Your task to perform on an android device: Open the calendar app, open the side menu, and click the "Day" option Image 0: 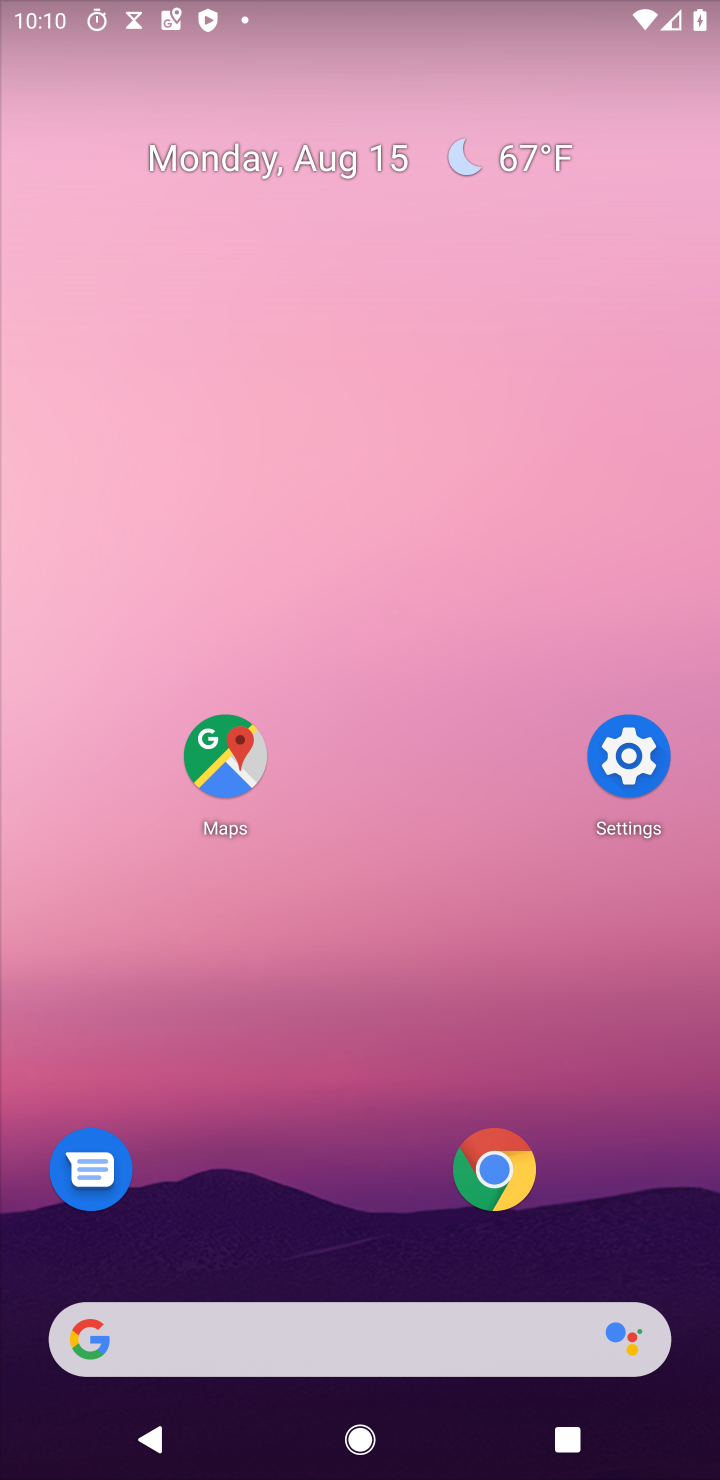
Step 0: drag from (291, 1342) to (577, 1452)
Your task to perform on an android device: Open the calendar app, open the side menu, and click the "Day" option Image 1: 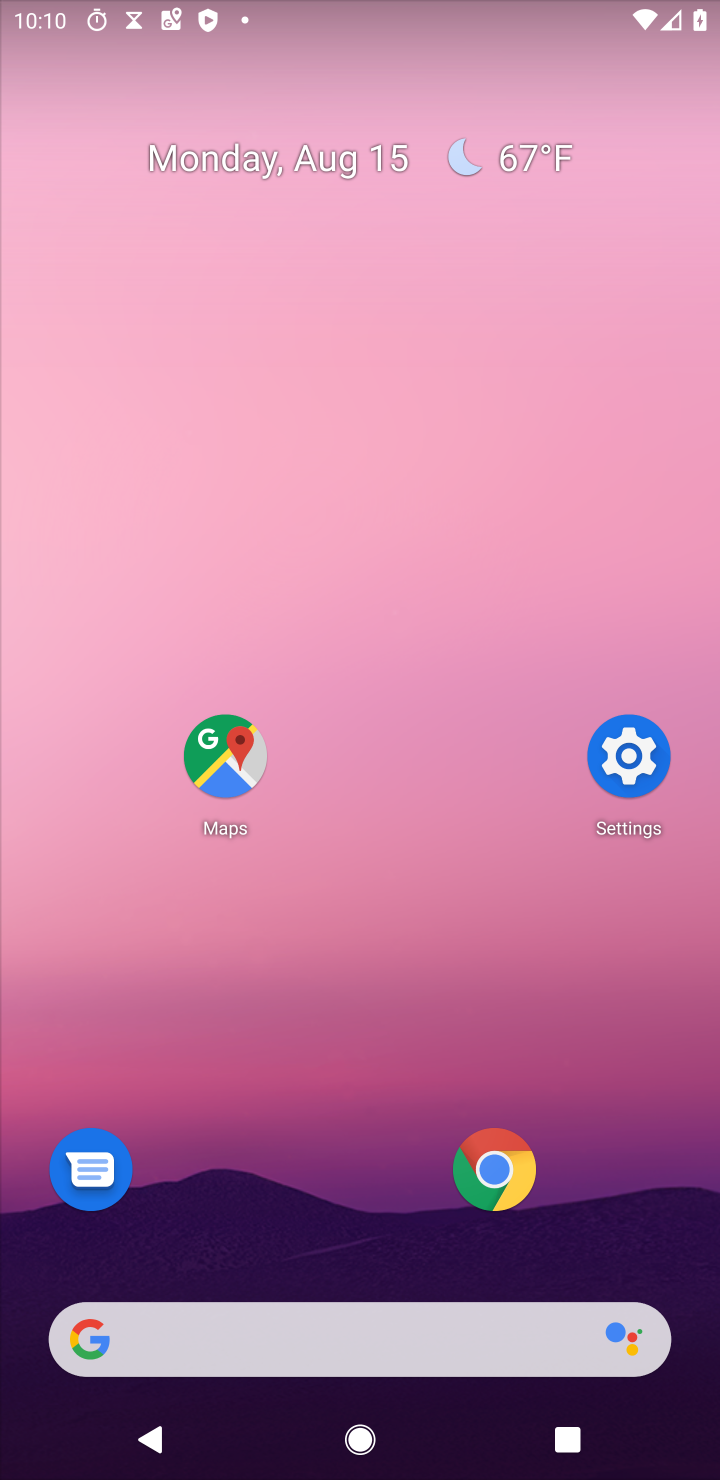
Step 1: drag from (312, 1310) to (570, 289)
Your task to perform on an android device: Open the calendar app, open the side menu, and click the "Day" option Image 2: 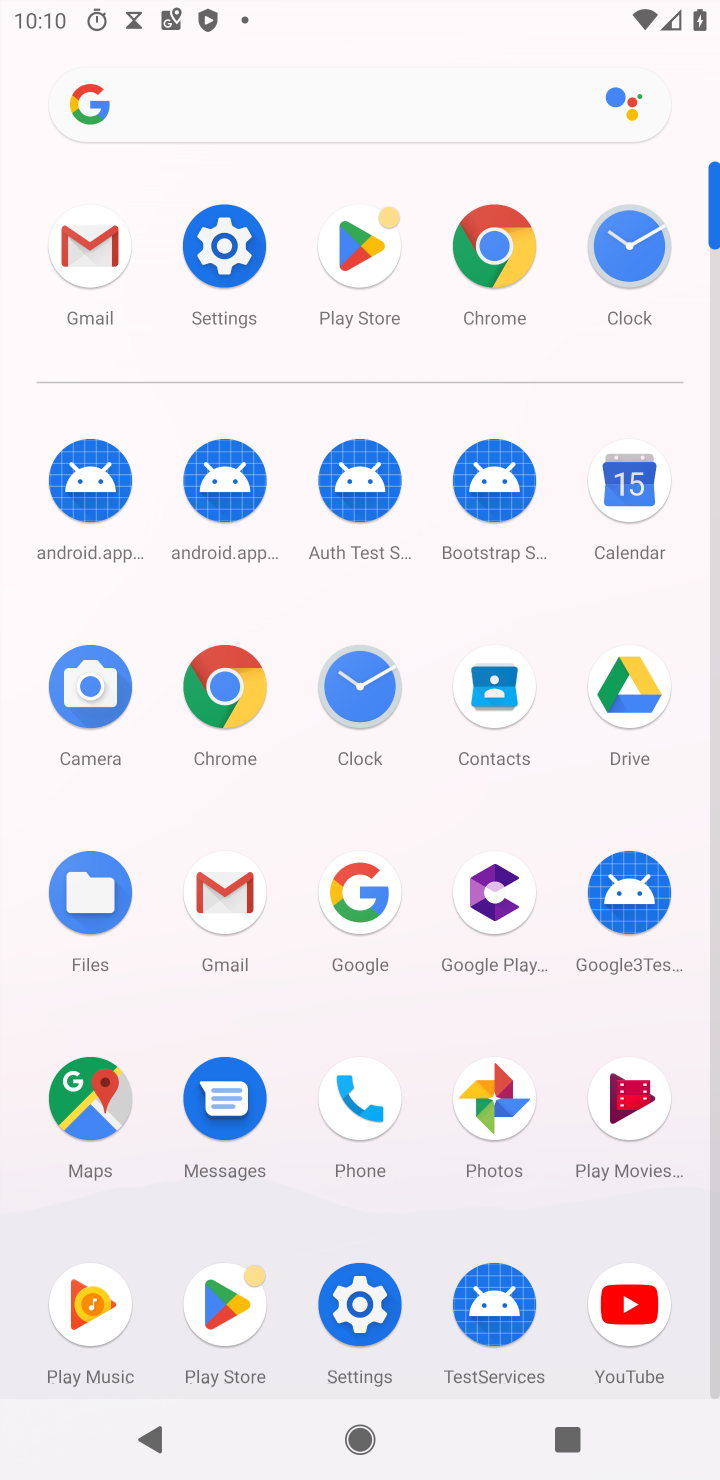
Step 2: click (626, 478)
Your task to perform on an android device: Open the calendar app, open the side menu, and click the "Day" option Image 3: 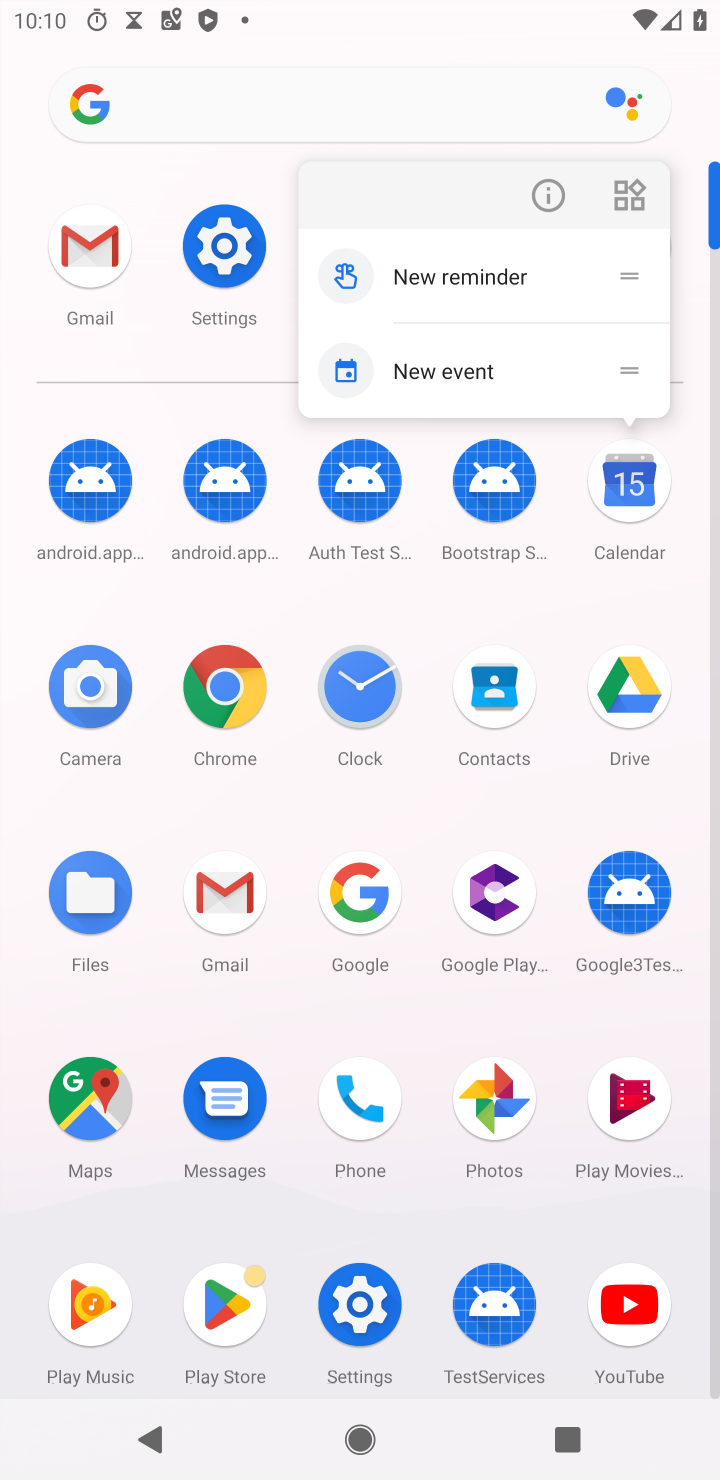
Step 3: click (643, 504)
Your task to perform on an android device: Open the calendar app, open the side menu, and click the "Day" option Image 4: 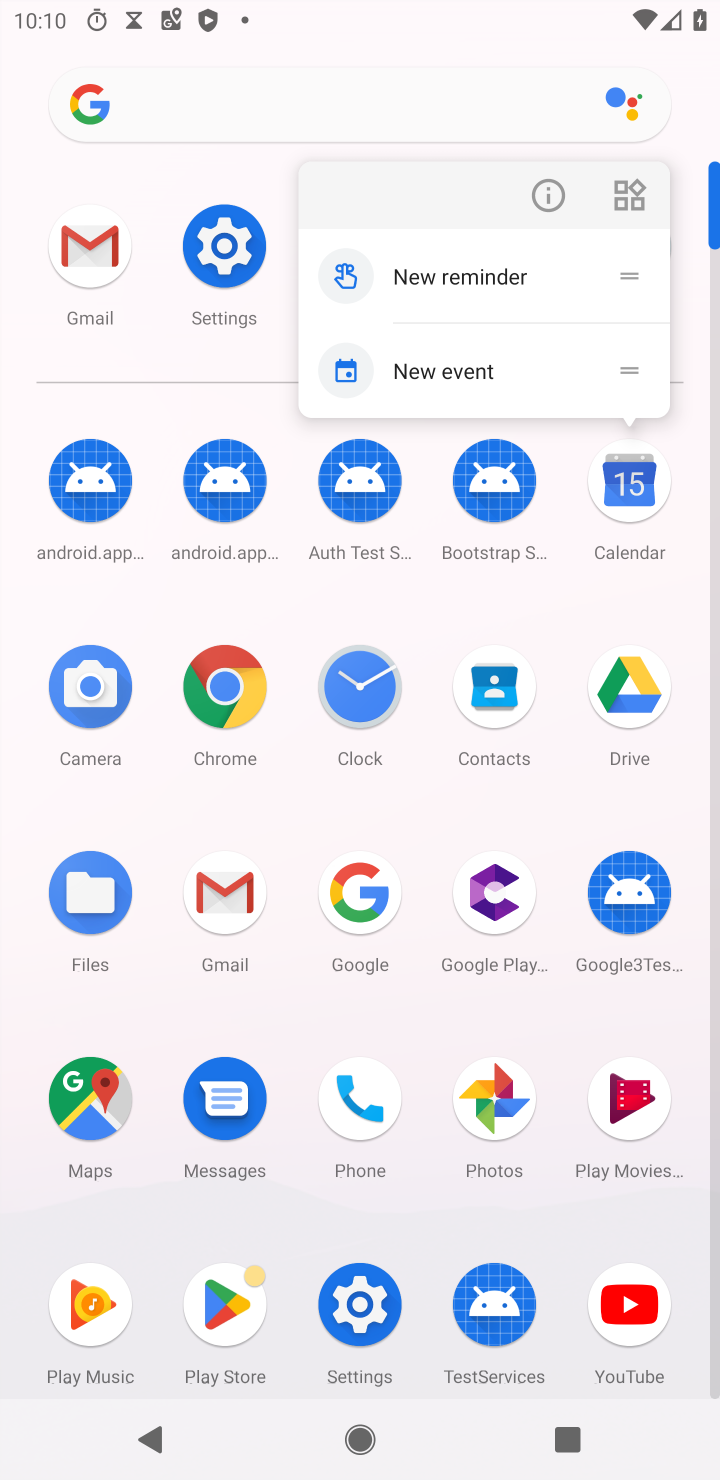
Step 4: click (635, 496)
Your task to perform on an android device: Open the calendar app, open the side menu, and click the "Day" option Image 5: 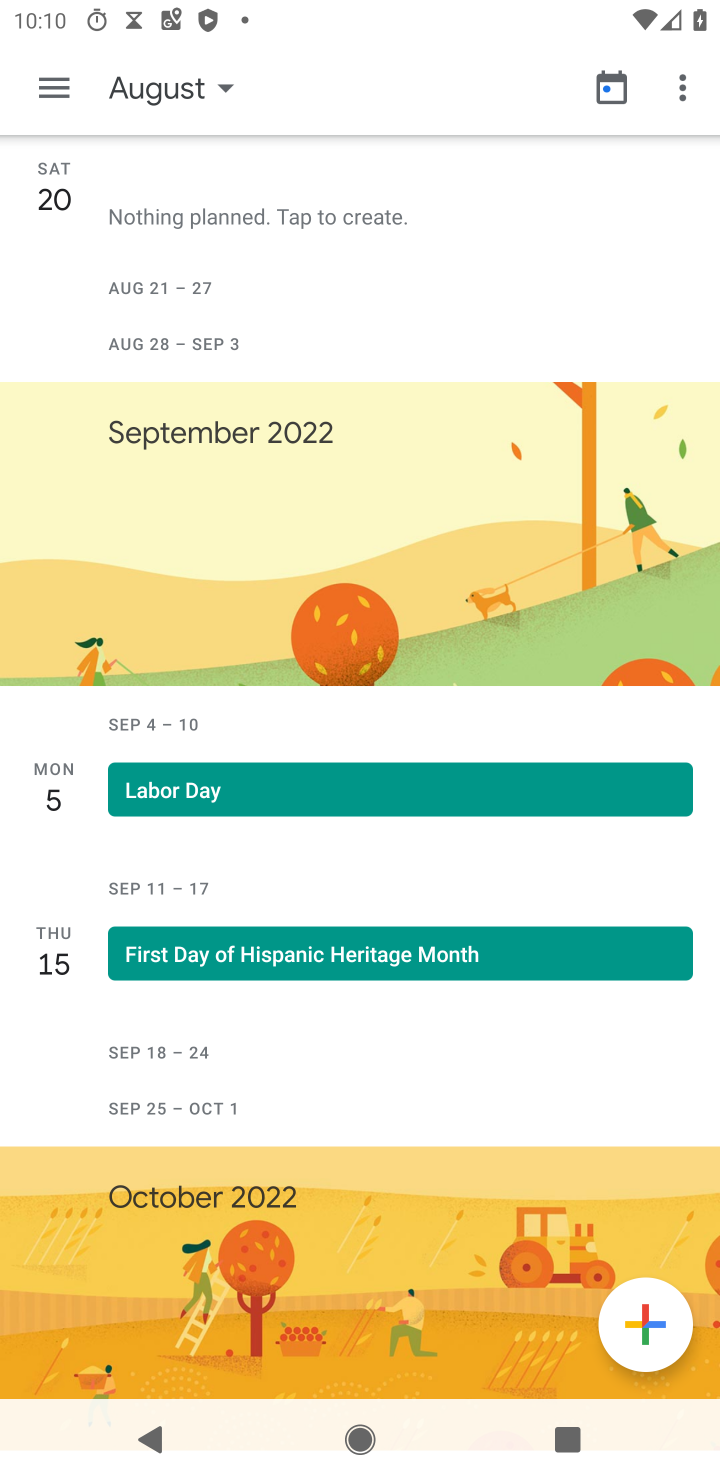
Step 5: click (46, 87)
Your task to perform on an android device: Open the calendar app, open the side menu, and click the "Day" option Image 6: 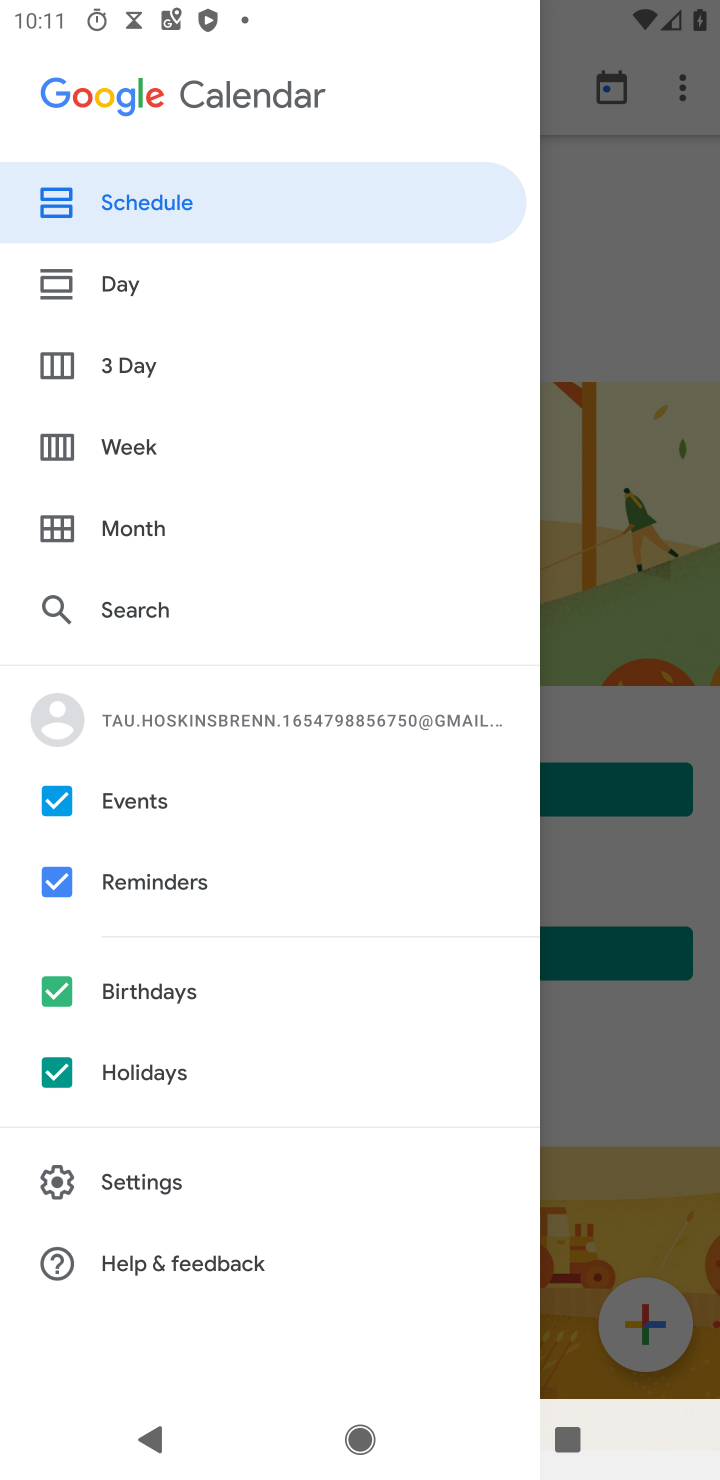
Step 6: click (125, 288)
Your task to perform on an android device: Open the calendar app, open the side menu, and click the "Day" option Image 7: 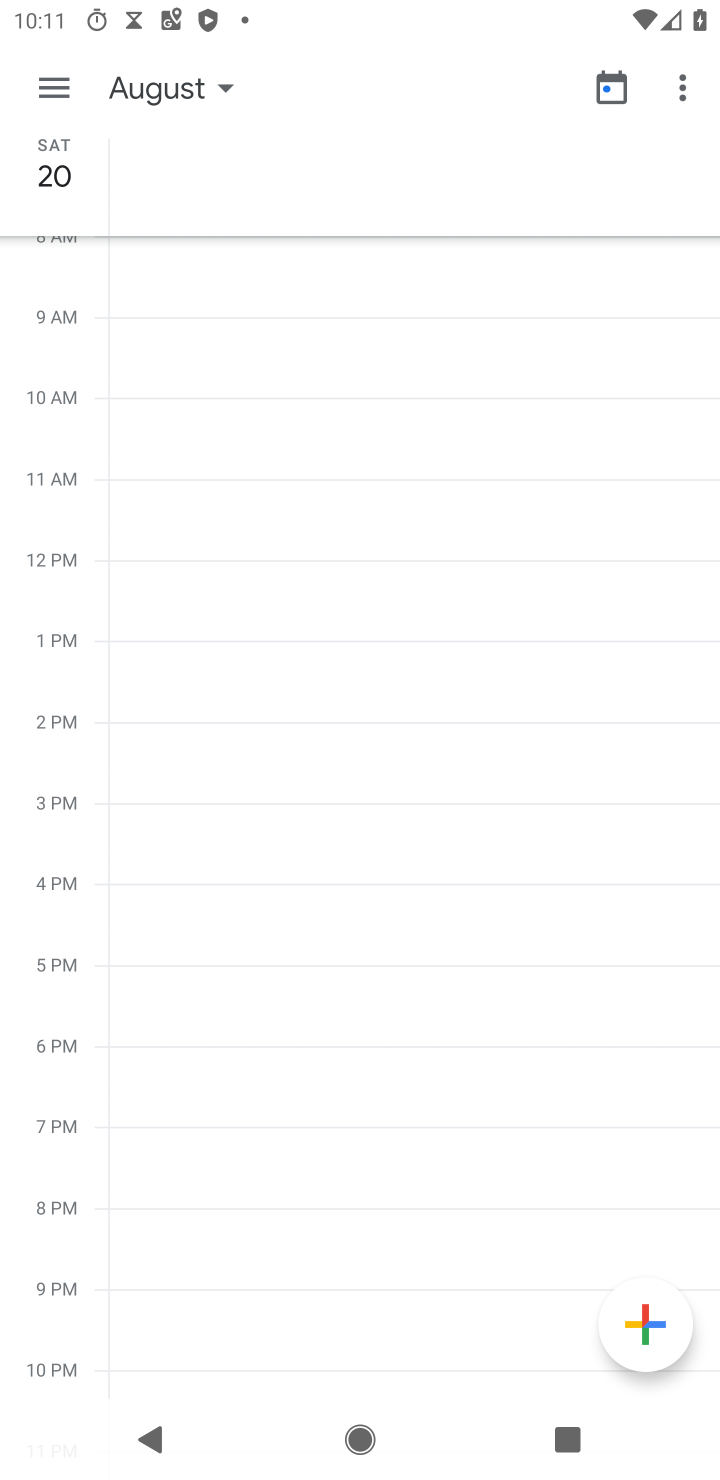
Step 7: task complete